Your task to perform on an android device: turn on priority inbox in the gmail app Image 0: 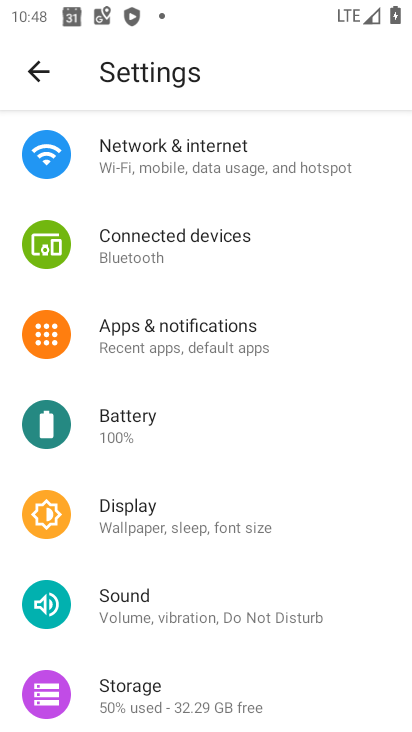
Step 0: press home button
Your task to perform on an android device: turn on priority inbox in the gmail app Image 1: 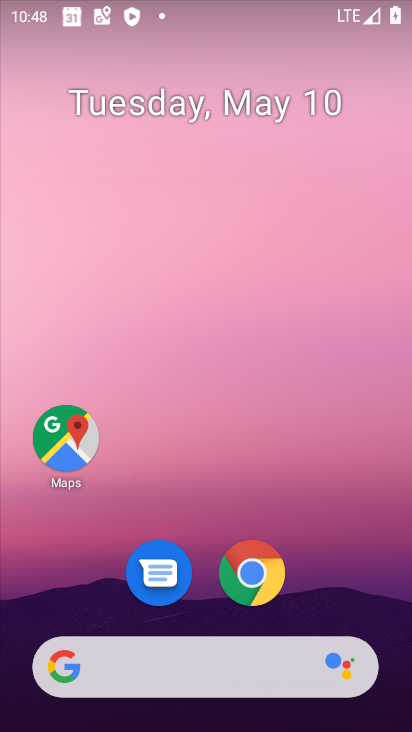
Step 1: drag from (300, 535) to (219, 1)
Your task to perform on an android device: turn on priority inbox in the gmail app Image 2: 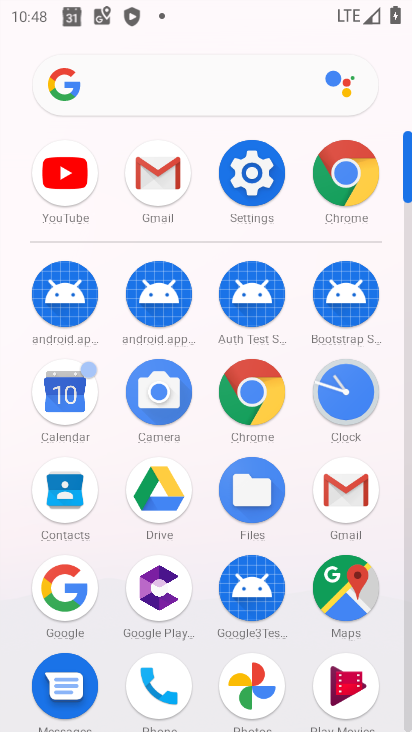
Step 2: click (155, 181)
Your task to perform on an android device: turn on priority inbox in the gmail app Image 3: 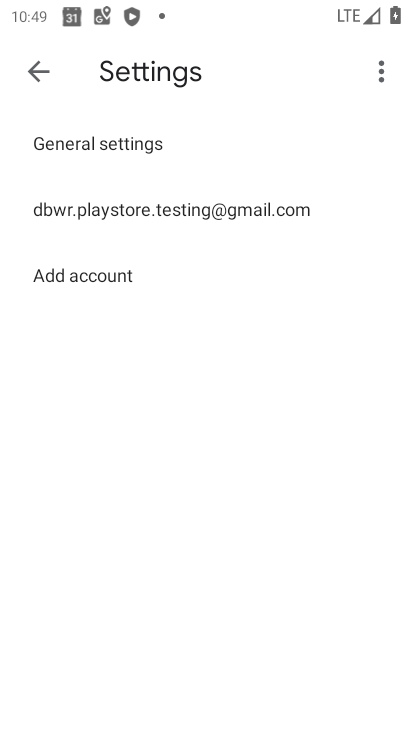
Step 3: click (60, 203)
Your task to perform on an android device: turn on priority inbox in the gmail app Image 4: 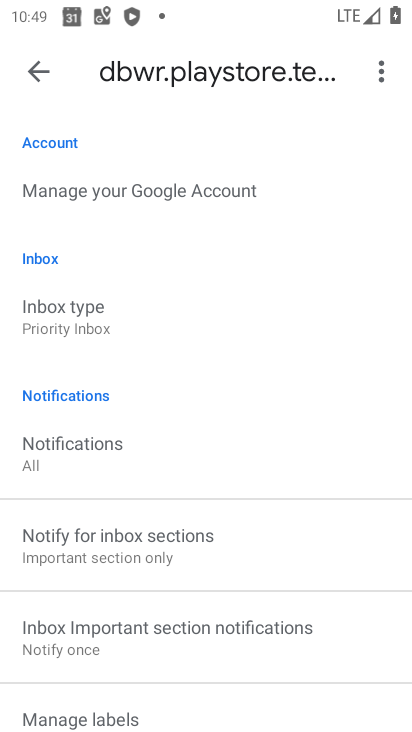
Step 4: click (58, 322)
Your task to perform on an android device: turn on priority inbox in the gmail app Image 5: 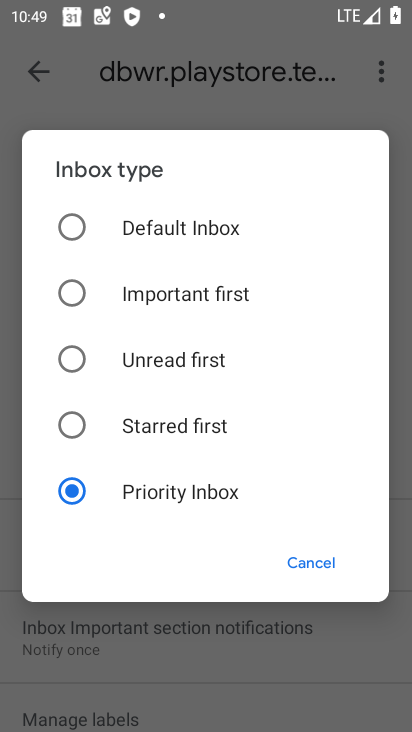
Step 5: task complete